Your task to perform on an android device: Go to battery settings Image 0: 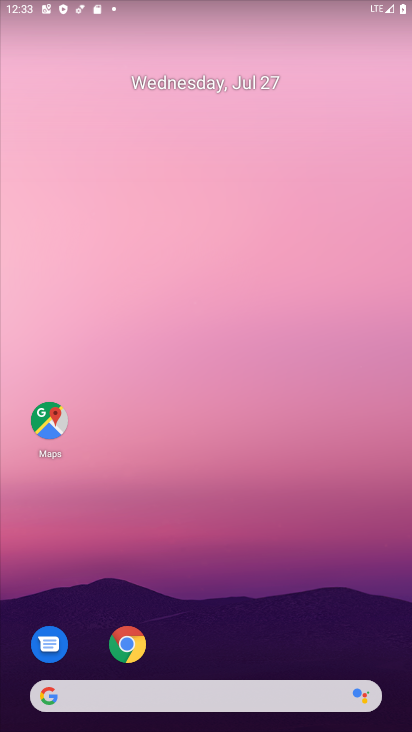
Step 0: drag from (217, 662) to (214, 25)
Your task to perform on an android device: Go to battery settings Image 1: 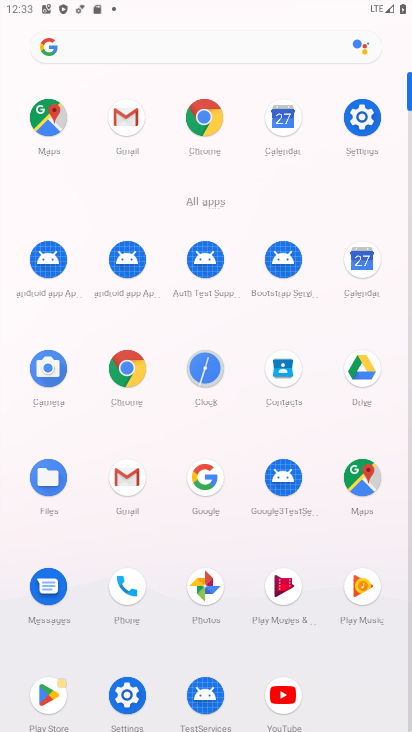
Step 1: click (119, 685)
Your task to perform on an android device: Go to battery settings Image 2: 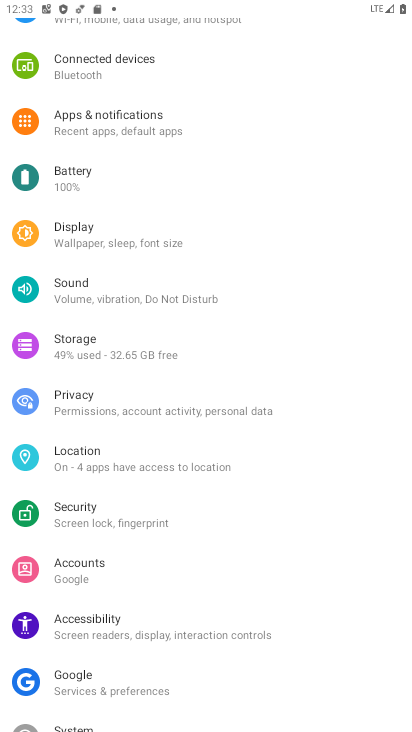
Step 2: click (76, 170)
Your task to perform on an android device: Go to battery settings Image 3: 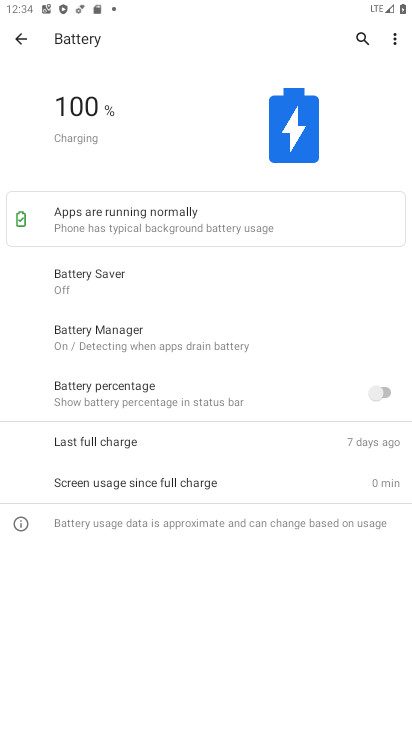
Step 3: task complete